Your task to perform on an android device: Go to Reddit.com Image 0: 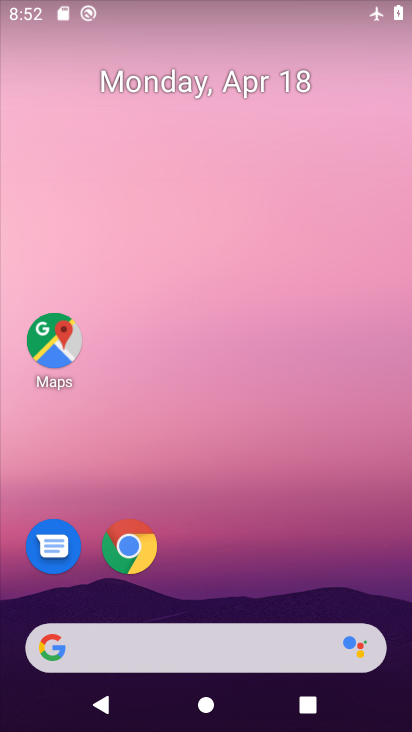
Step 0: click (160, 108)
Your task to perform on an android device: Go to Reddit.com Image 1: 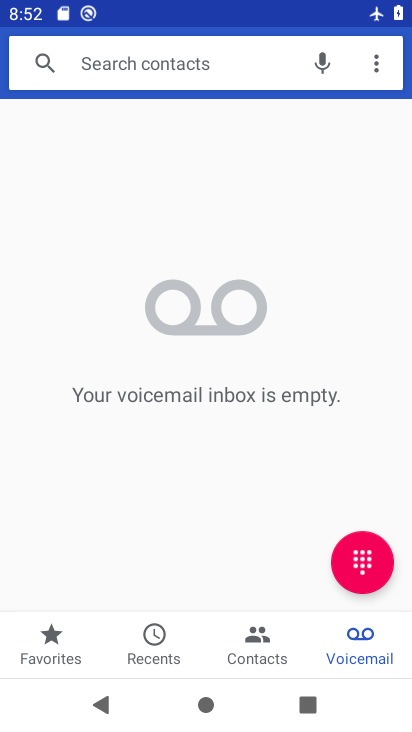
Step 1: press home button
Your task to perform on an android device: Go to Reddit.com Image 2: 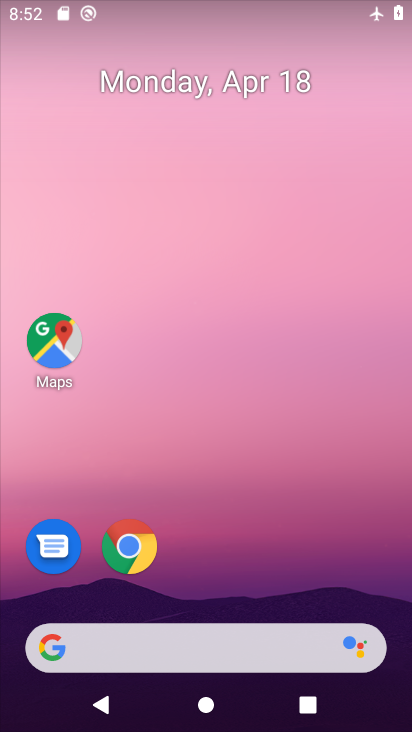
Step 2: click (126, 570)
Your task to perform on an android device: Go to Reddit.com Image 3: 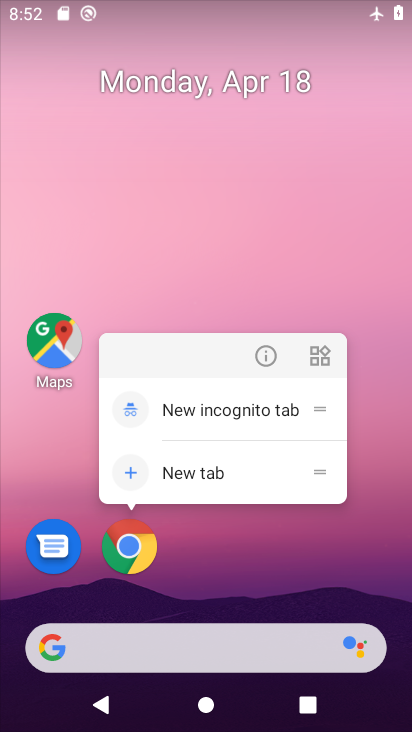
Step 3: click (127, 567)
Your task to perform on an android device: Go to Reddit.com Image 4: 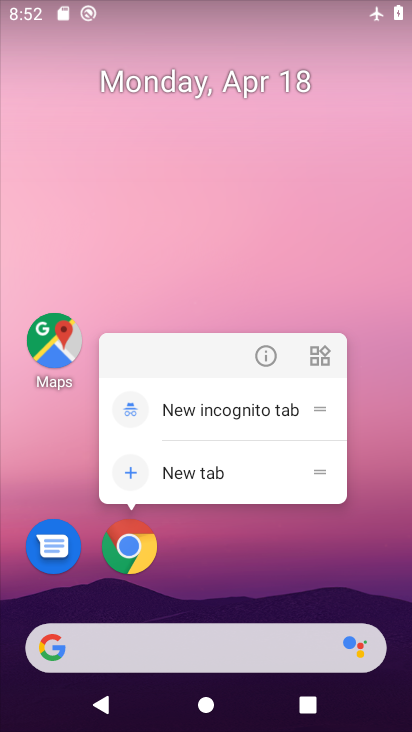
Step 4: click (377, 546)
Your task to perform on an android device: Go to Reddit.com Image 5: 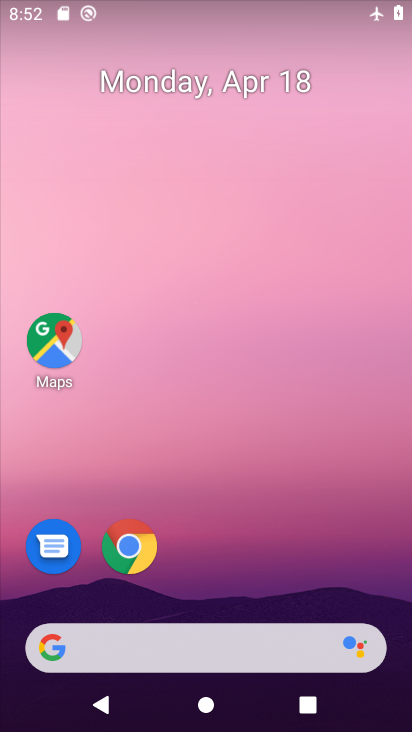
Step 5: drag from (364, 437) to (250, 111)
Your task to perform on an android device: Go to Reddit.com Image 6: 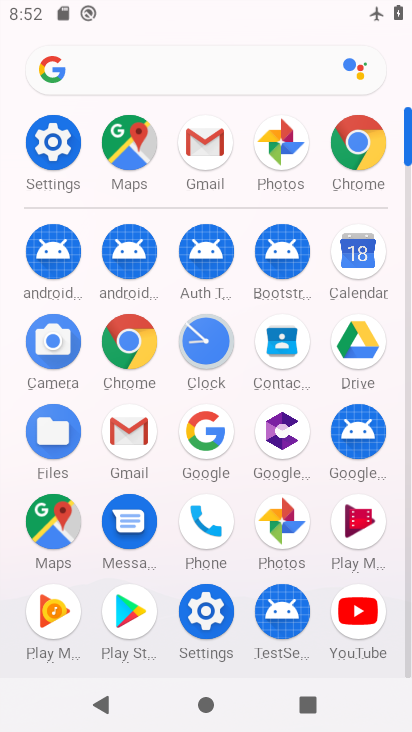
Step 6: click (127, 325)
Your task to perform on an android device: Go to Reddit.com Image 7: 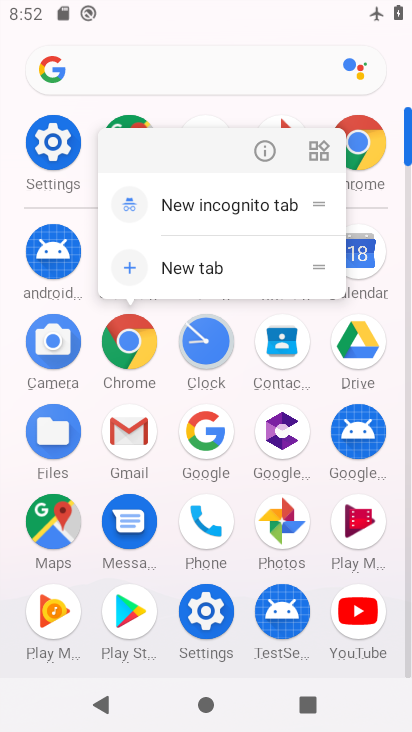
Step 7: click (135, 343)
Your task to perform on an android device: Go to Reddit.com Image 8: 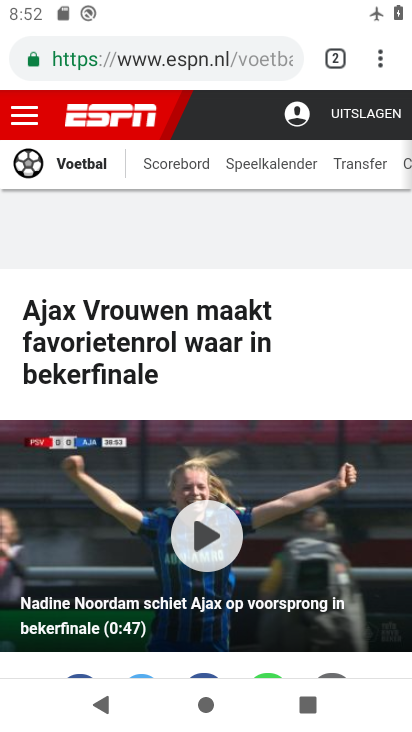
Step 8: click (234, 62)
Your task to perform on an android device: Go to Reddit.com Image 9: 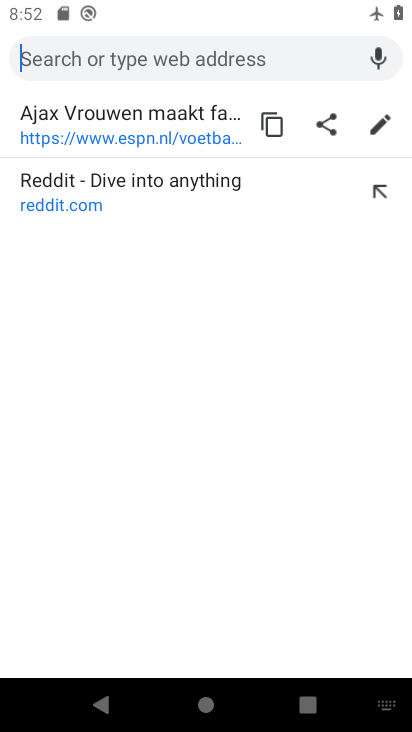
Step 9: click (184, 196)
Your task to perform on an android device: Go to Reddit.com Image 10: 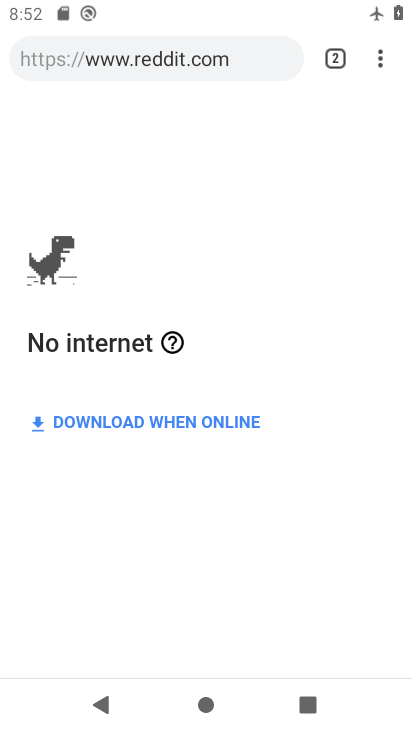
Step 10: task complete